Your task to perform on an android device: What is the news today? Image 0: 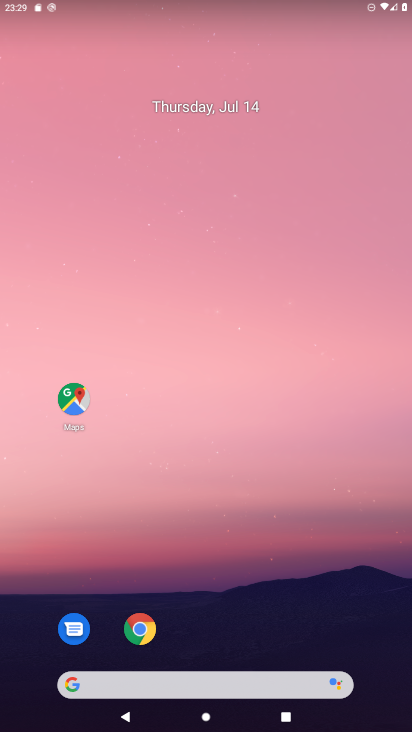
Step 0: click (139, 678)
Your task to perform on an android device: What is the news today? Image 1: 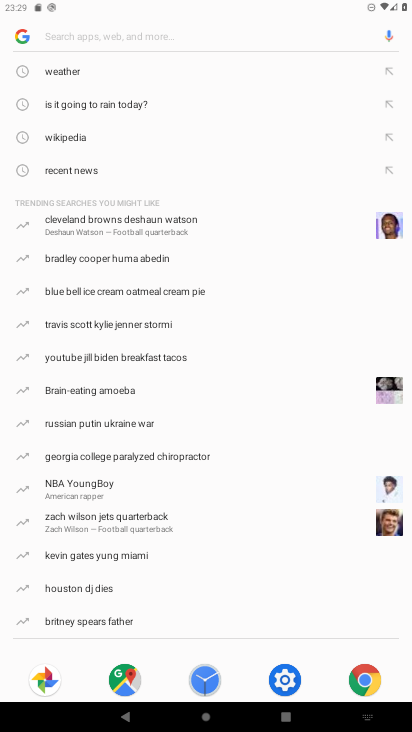
Step 1: click (20, 41)
Your task to perform on an android device: What is the news today? Image 2: 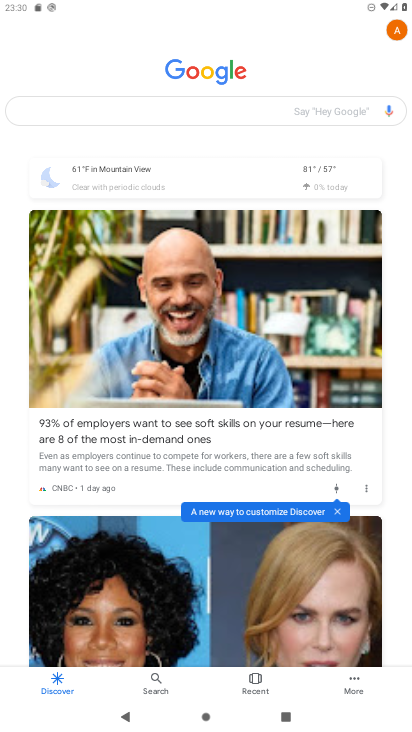
Step 2: task complete